Your task to perform on an android device: move an email to a new category in the gmail app Image 0: 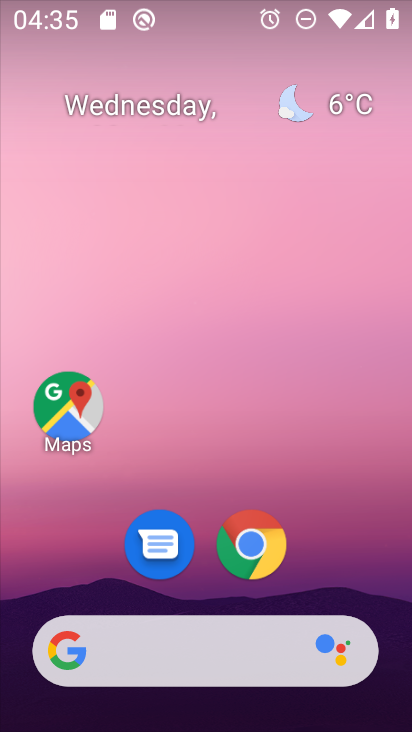
Step 0: drag from (307, 577) to (309, 186)
Your task to perform on an android device: move an email to a new category in the gmail app Image 1: 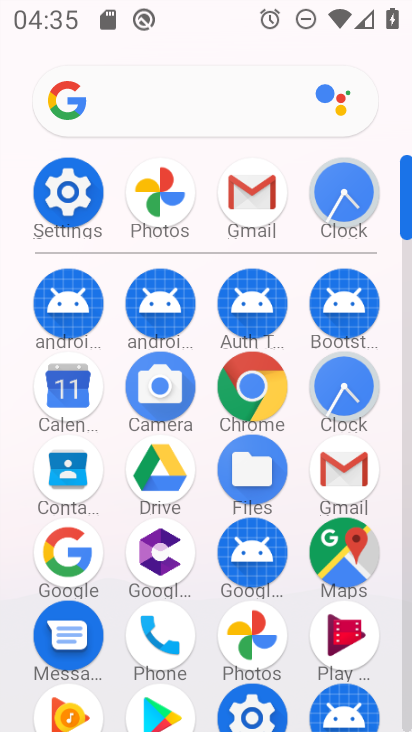
Step 1: click (264, 204)
Your task to perform on an android device: move an email to a new category in the gmail app Image 2: 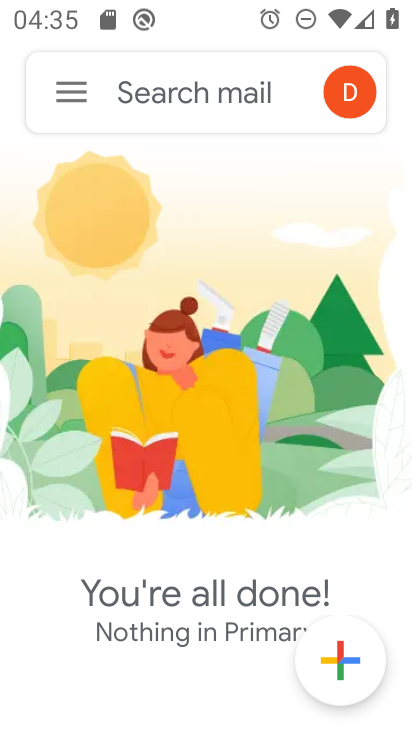
Step 2: click (50, 95)
Your task to perform on an android device: move an email to a new category in the gmail app Image 3: 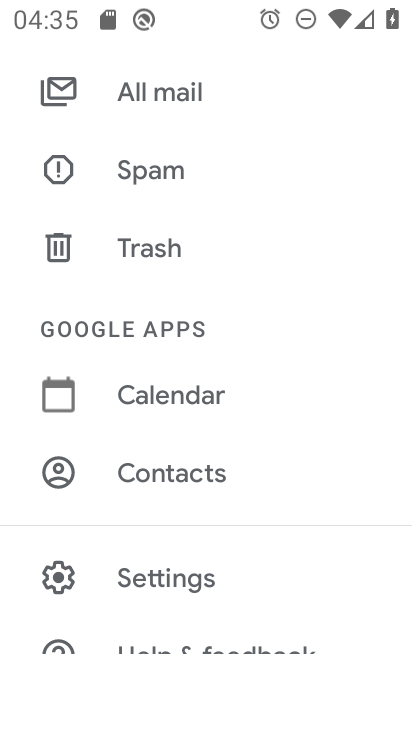
Step 3: click (152, 566)
Your task to perform on an android device: move an email to a new category in the gmail app Image 4: 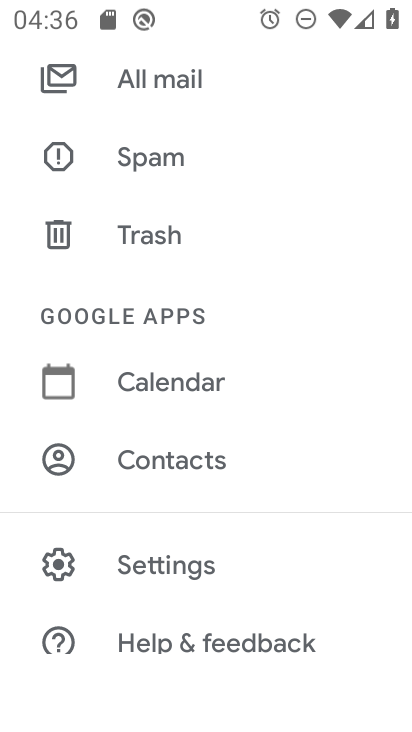
Step 4: click (222, 100)
Your task to perform on an android device: move an email to a new category in the gmail app Image 5: 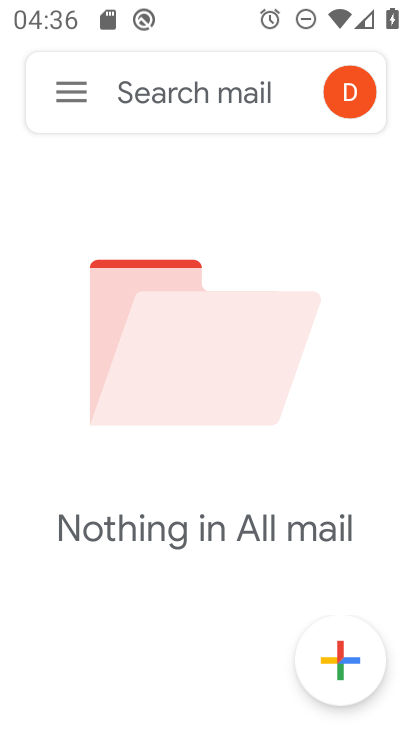
Step 5: task complete